Your task to perform on an android device: What's the weather going to be tomorrow? Image 0: 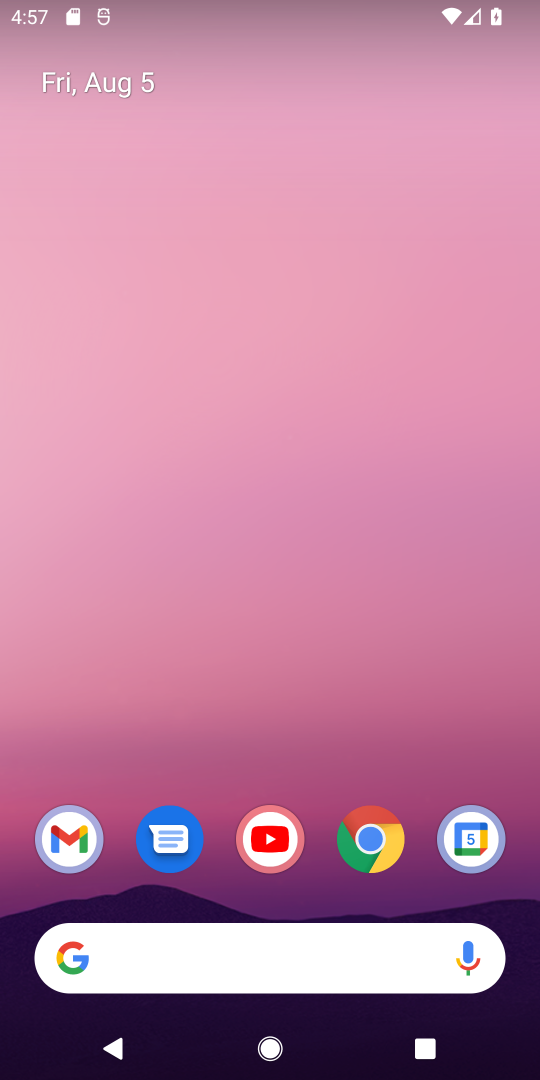
Step 0: drag from (277, 705) to (273, 287)
Your task to perform on an android device: What's the weather going to be tomorrow? Image 1: 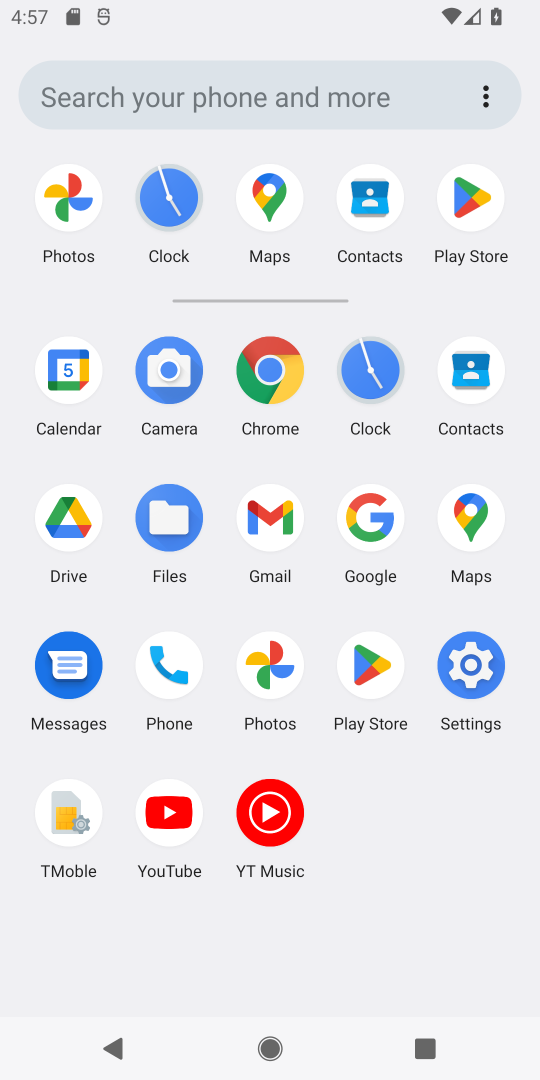
Step 1: click (379, 548)
Your task to perform on an android device: What's the weather going to be tomorrow? Image 2: 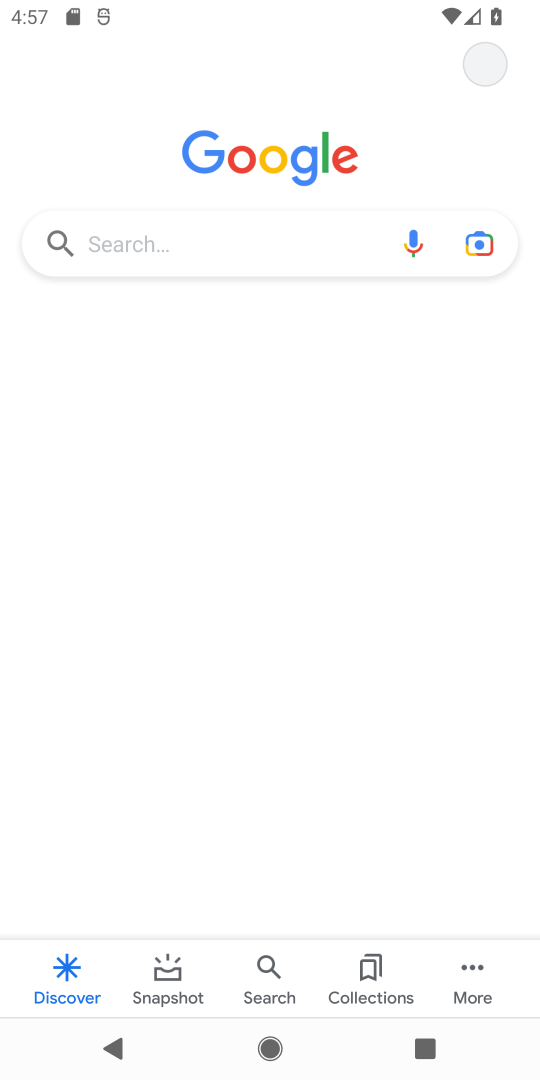
Step 2: click (185, 244)
Your task to perform on an android device: What's the weather going to be tomorrow? Image 3: 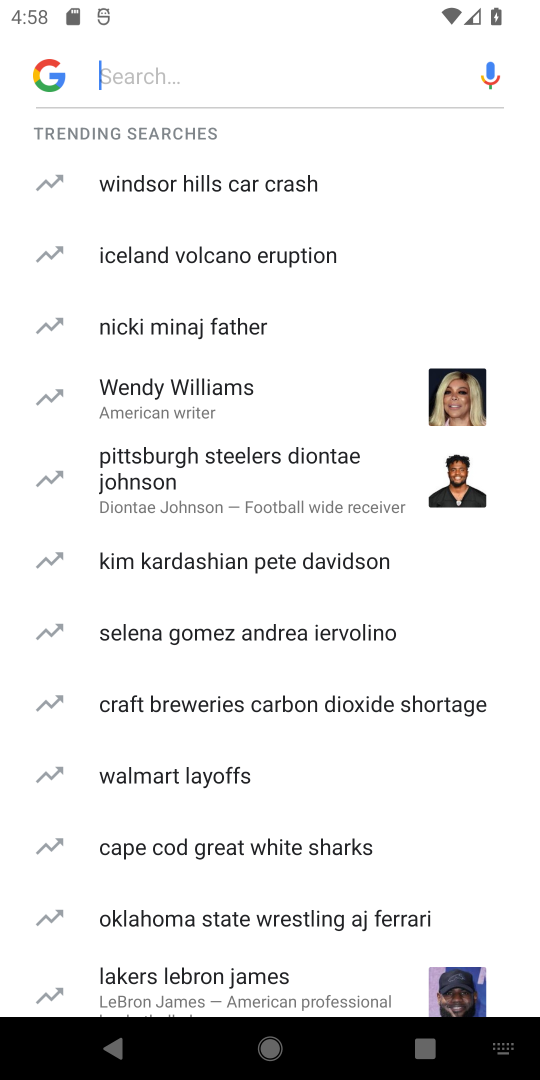
Step 3: type "weathe"
Your task to perform on an android device: What's the weather going to be tomorrow? Image 4: 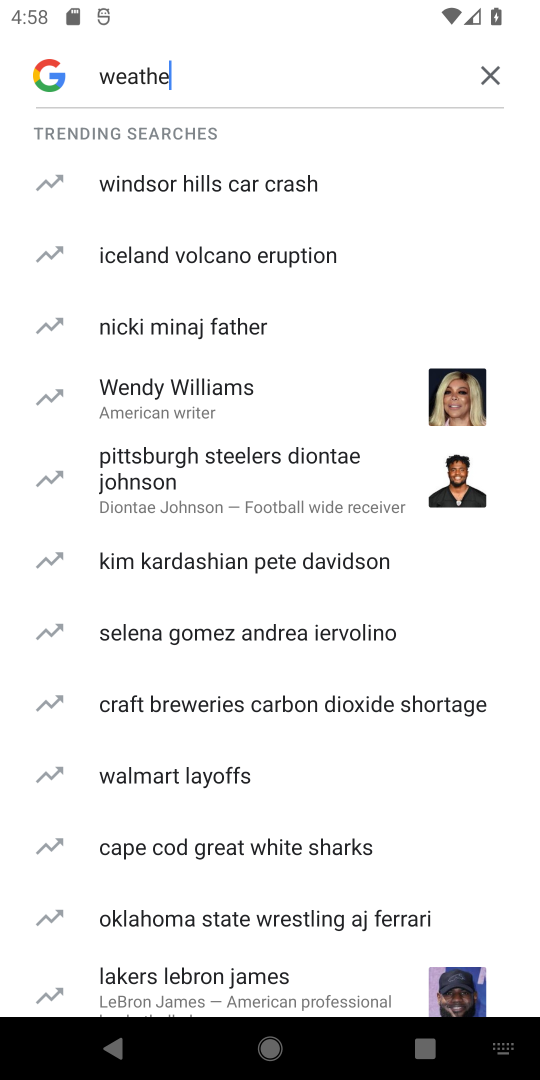
Step 4: type ""
Your task to perform on an android device: What's the weather going to be tomorrow? Image 5: 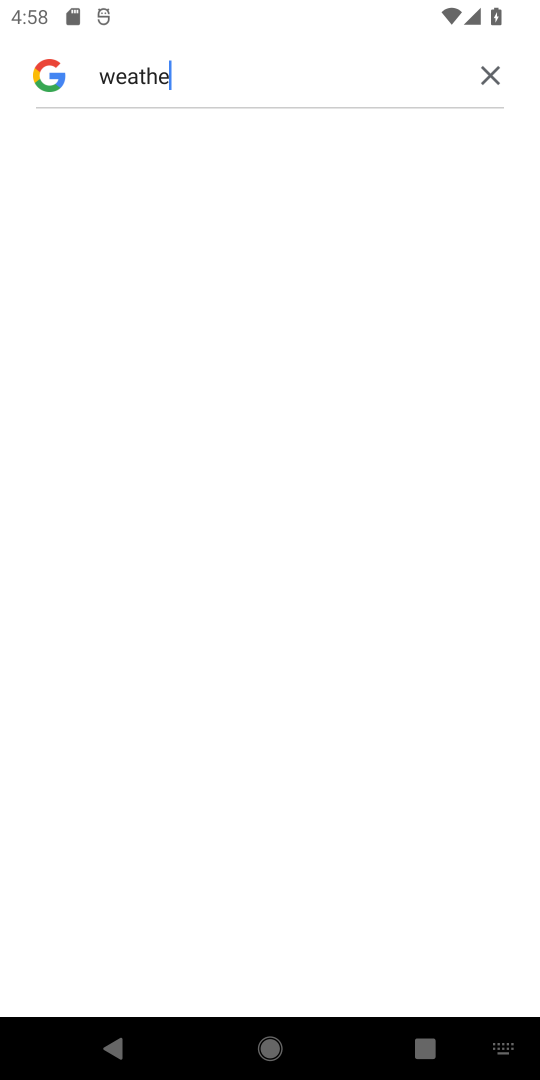
Step 5: task complete